Your task to perform on an android device: Search for sushi restaurants on Maps Image 0: 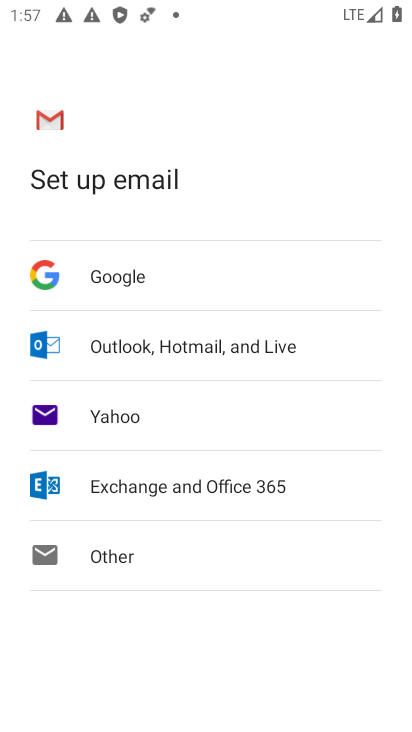
Step 0: press back button
Your task to perform on an android device: Search for sushi restaurants on Maps Image 1: 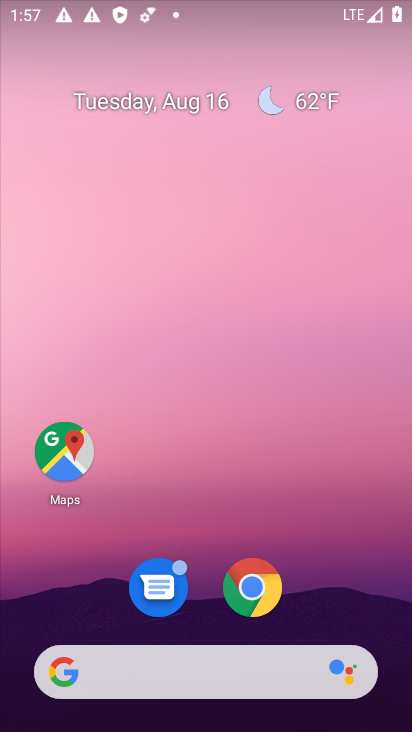
Step 1: click (54, 454)
Your task to perform on an android device: Search for sushi restaurants on Maps Image 2: 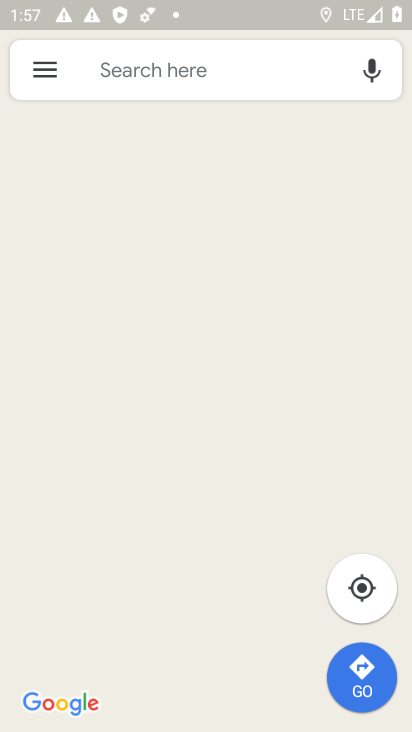
Step 2: click (148, 60)
Your task to perform on an android device: Search for sushi restaurants on Maps Image 3: 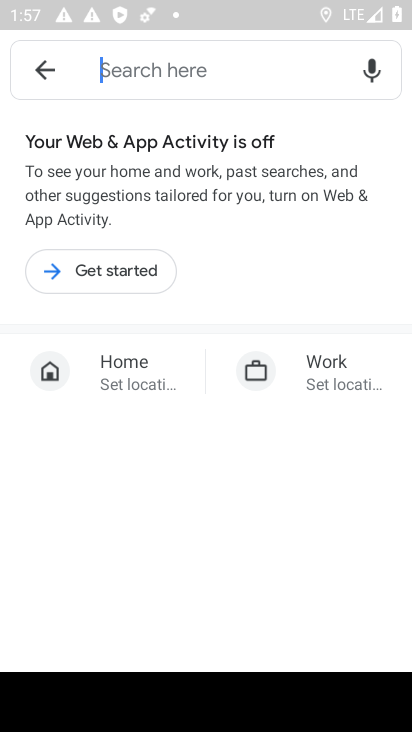
Step 3: click (182, 71)
Your task to perform on an android device: Search for sushi restaurants on Maps Image 4: 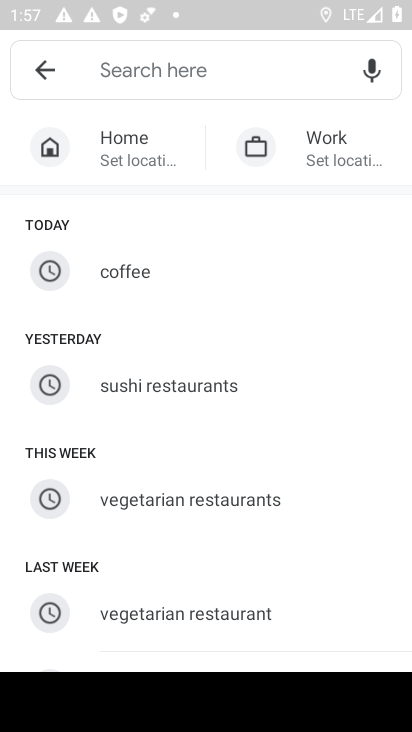
Step 4: type "sushi "
Your task to perform on an android device: Search for sushi restaurants on Maps Image 5: 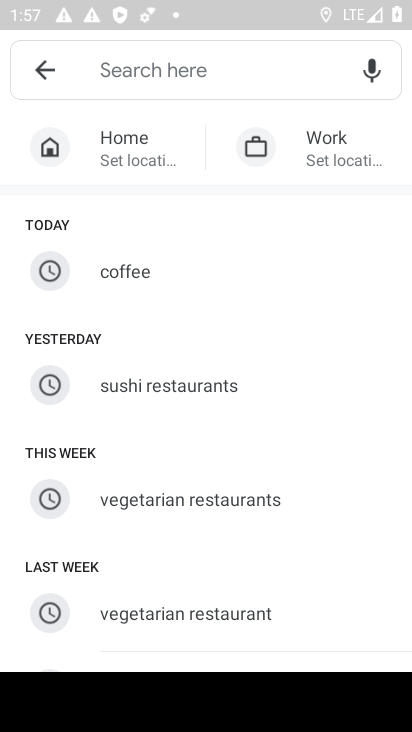
Step 5: click (180, 387)
Your task to perform on an android device: Search for sushi restaurants on Maps Image 6: 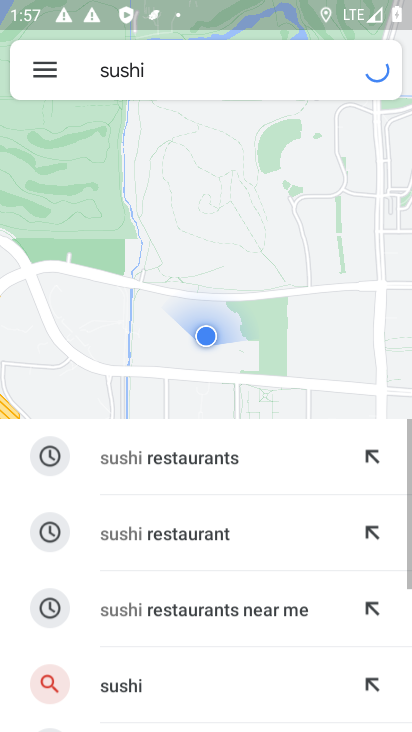
Step 6: click (158, 133)
Your task to perform on an android device: Search for sushi restaurants on Maps Image 7: 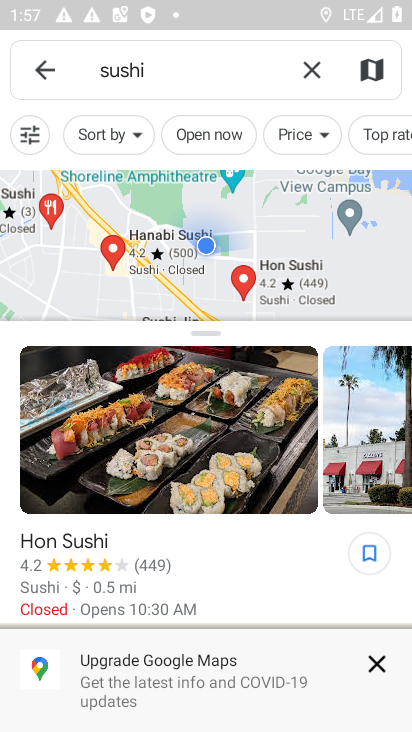
Step 7: task complete